Your task to perform on an android device: Go to Yahoo.com Image 0: 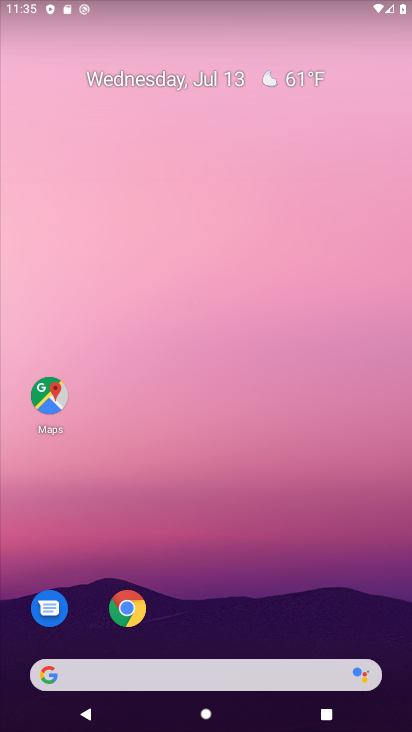
Step 0: click (273, 247)
Your task to perform on an android device: Go to Yahoo.com Image 1: 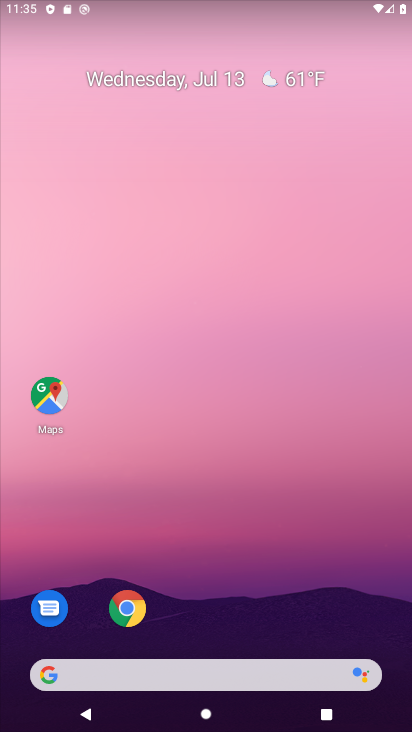
Step 1: drag from (182, 600) to (198, 278)
Your task to perform on an android device: Go to Yahoo.com Image 2: 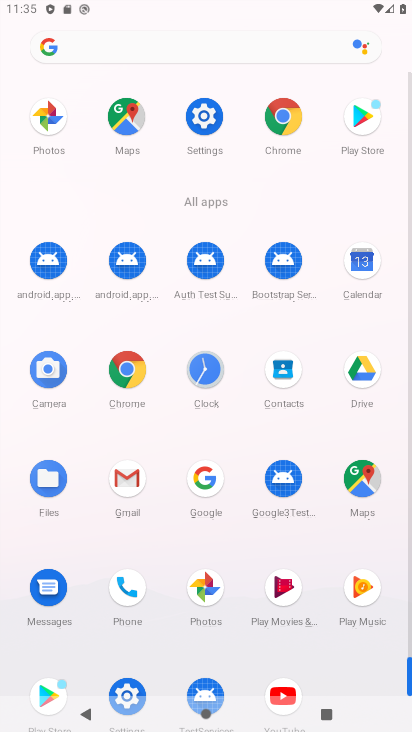
Step 2: drag from (176, 605) to (153, 262)
Your task to perform on an android device: Go to Yahoo.com Image 3: 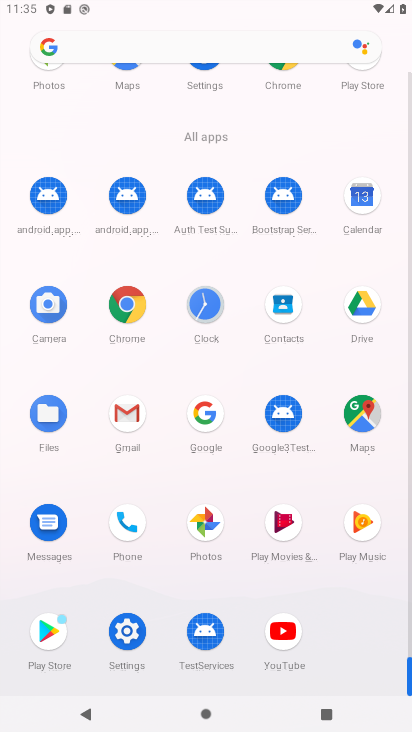
Step 3: drag from (150, 639) to (199, 303)
Your task to perform on an android device: Go to Yahoo.com Image 4: 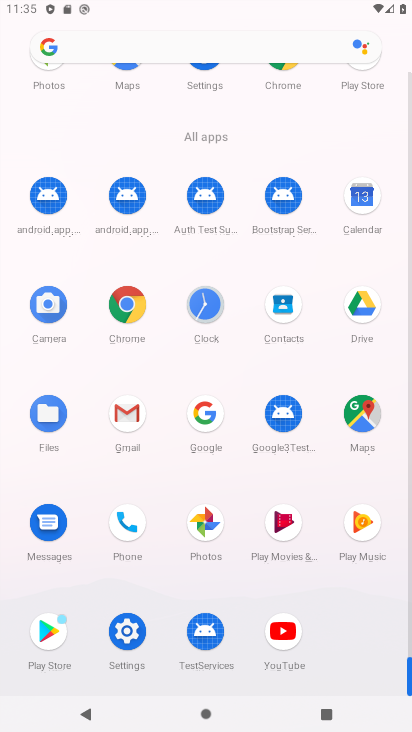
Step 4: drag from (154, 582) to (178, 291)
Your task to perform on an android device: Go to Yahoo.com Image 5: 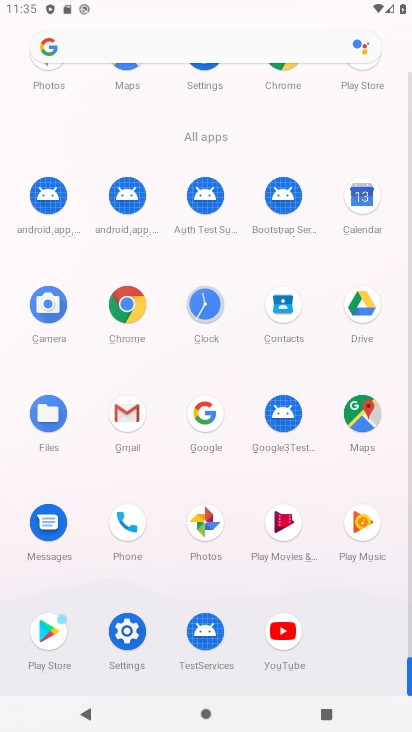
Step 5: drag from (230, 470) to (212, 280)
Your task to perform on an android device: Go to Yahoo.com Image 6: 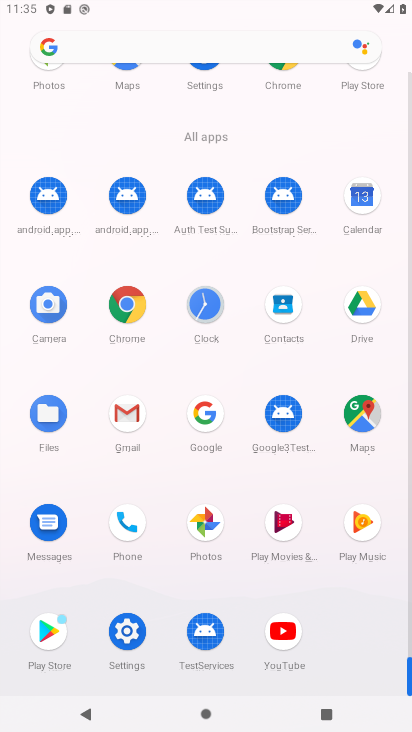
Step 6: drag from (216, 521) to (203, 314)
Your task to perform on an android device: Go to Yahoo.com Image 7: 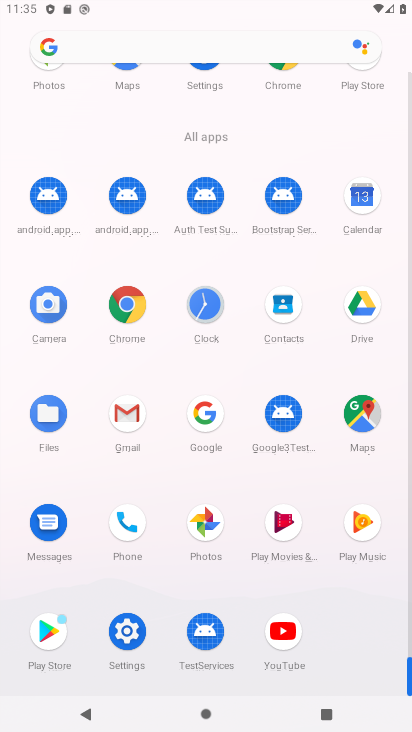
Step 7: click (131, 296)
Your task to perform on an android device: Go to Yahoo.com Image 8: 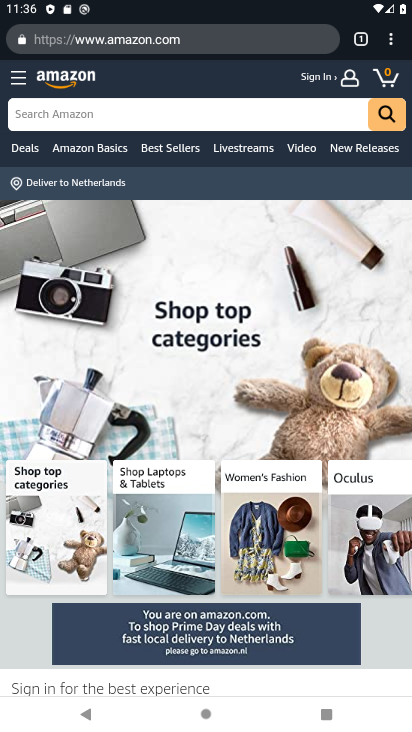
Step 8: drag from (245, 622) to (252, 417)
Your task to perform on an android device: Go to Yahoo.com Image 9: 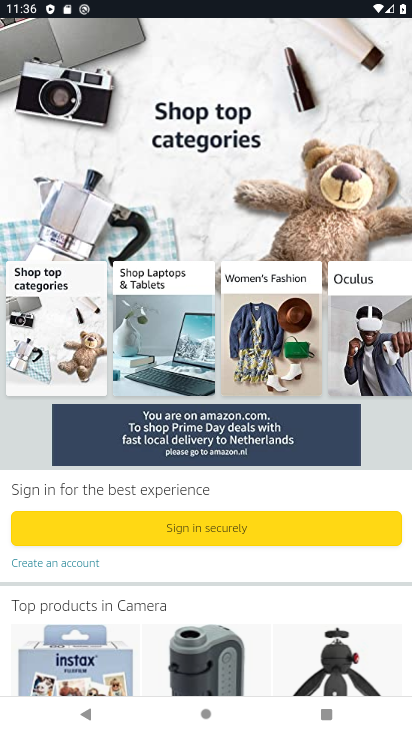
Step 9: drag from (187, 141) to (318, 677)
Your task to perform on an android device: Go to Yahoo.com Image 10: 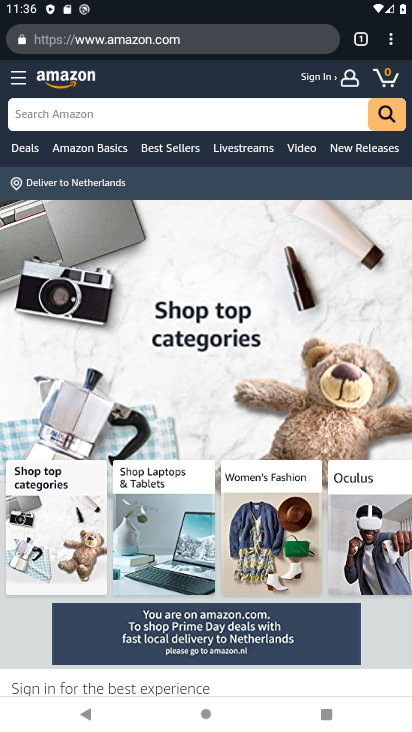
Step 10: click (225, 43)
Your task to perform on an android device: Go to Yahoo.com Image 11: 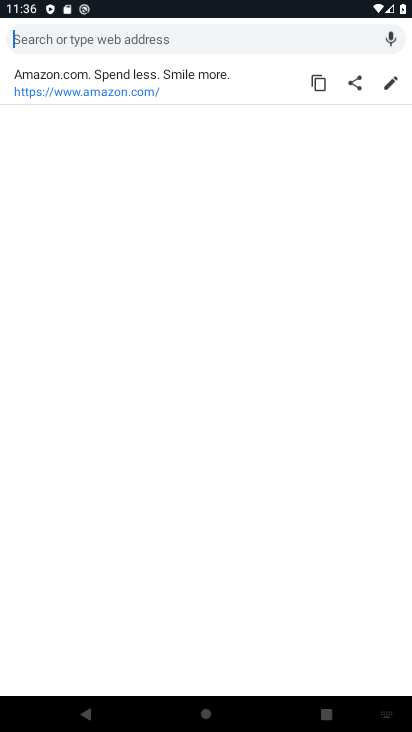
Step 11: type "Yahoo"
Your task to perform on an android device: Go to Yahoo.com Image 12: 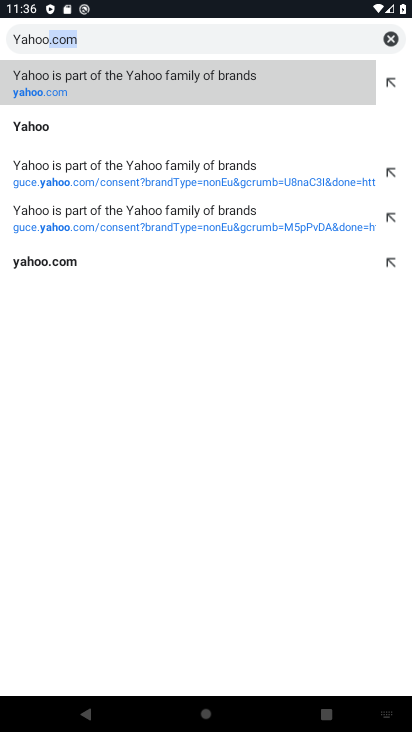
Step 12: click (86, 85)
Your task to perform on an android device: Go to Yahoo.com Image 13: 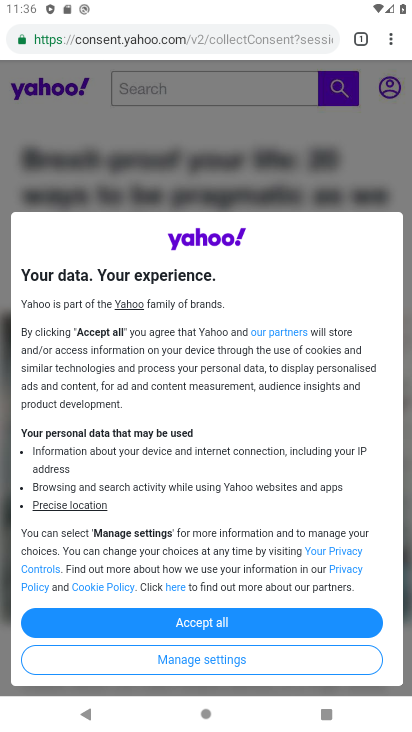
Step 13: task complete